Your task to perform on an android device: Go to ESPN.com Image 0: 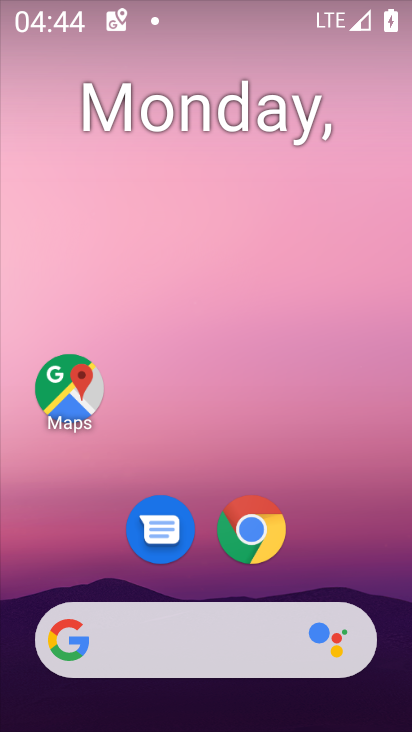
Step 0: drag from (366, 531) to (305, 90)
Your task to perform on an android device: Go to ESPN.com Image 1: 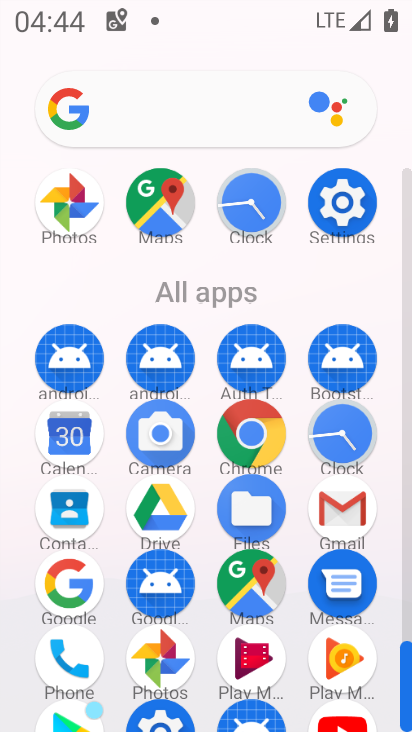
Step 1: click (252, 425)
Your task to perform on an android device: Go to ESPN.com Image 2: 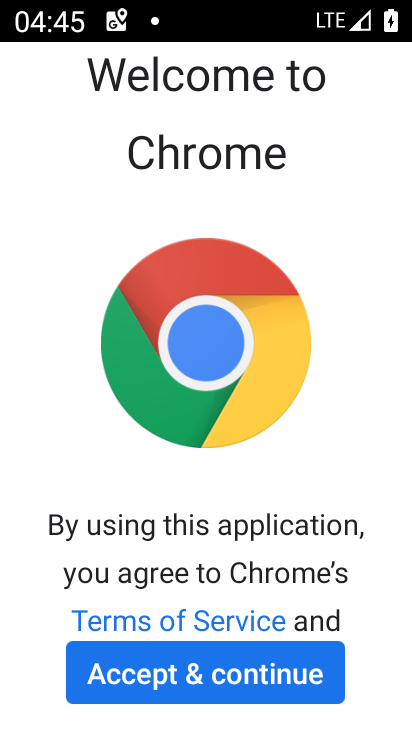
Step 2: click (296, 676)
Your task to perform on an android device: Go to ESPN.com Image 3: 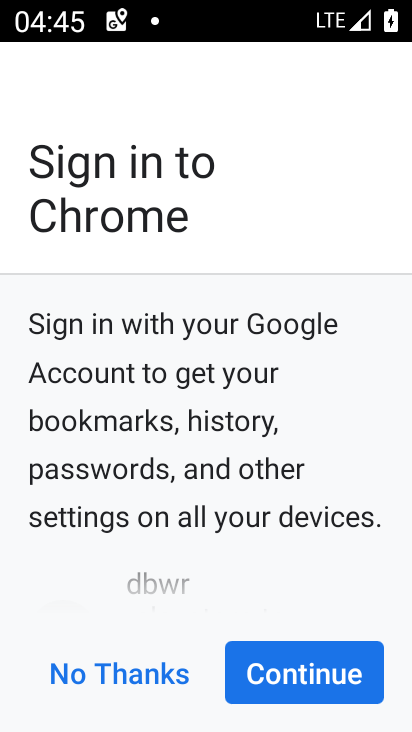
Step 3: click (296, 676)
Your task to perform on an android device: Go to ESPN.com Image 4: 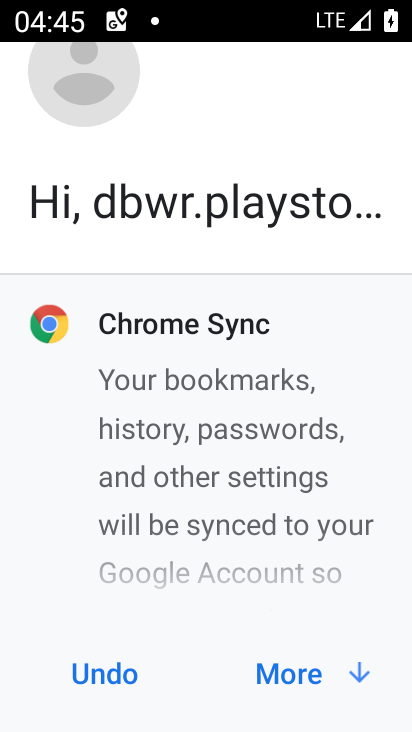
Step 4: click (298, 682)
Your task to perform on an android device: Go to ESPN.com Image 5: 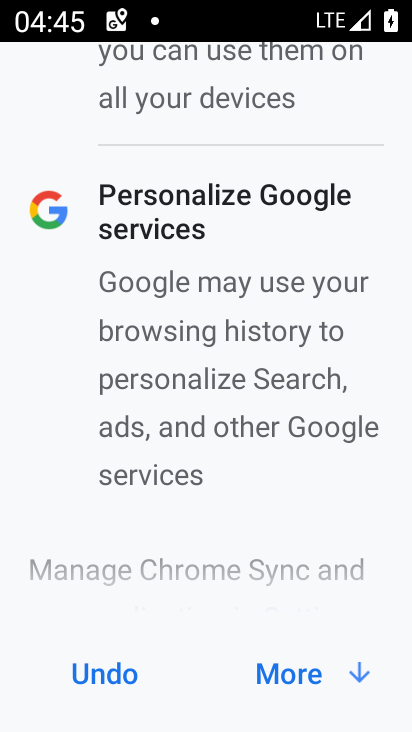
Step 5: click (298, 682)
Your task to perform on an android device: Go to ESPN.com Image 6: 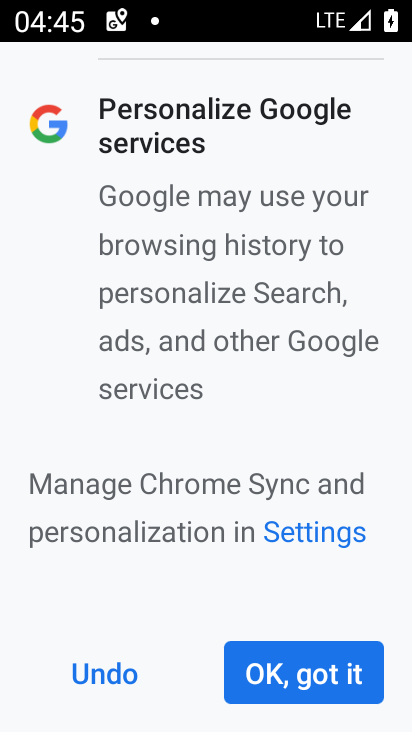
Step 6: click (298, 682)
Your task to perform on an android device: Go to ESPN.com Image 7: 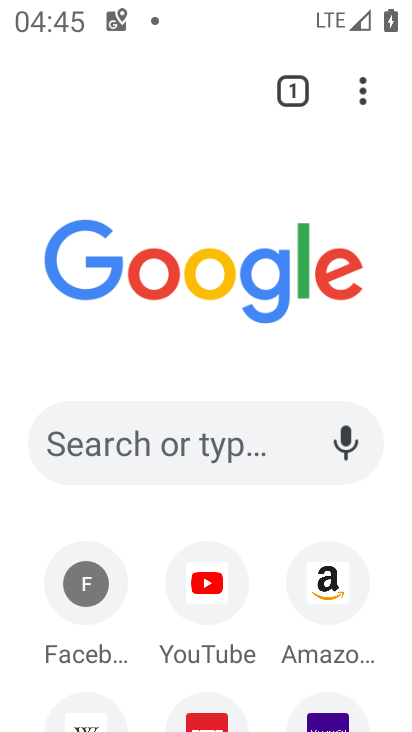
Step 7: drag from (298, 682) to (232, 248)
Your task to perform on an android device: Go to ESPN.com Image 8: 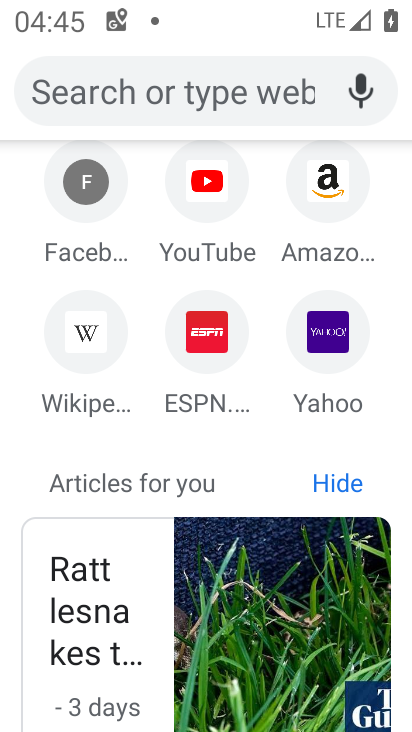
Step 8: click (208, 387)
Your task to perform on an android device: Go to ESPN.com Image 9: 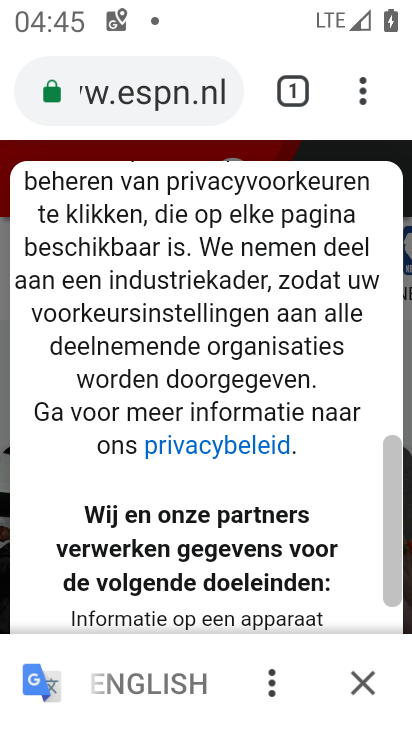
Step 9: task complete